Your task to perform on an android device: Open Google Image 0: 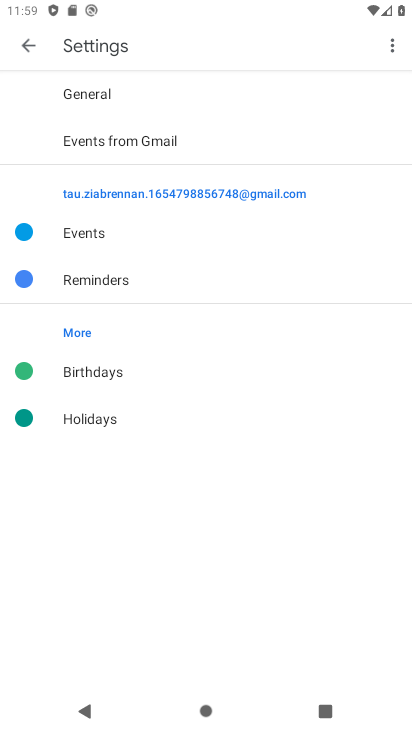
Step 0: press home button
Your task to perform on an android device: Open Google Image 1: 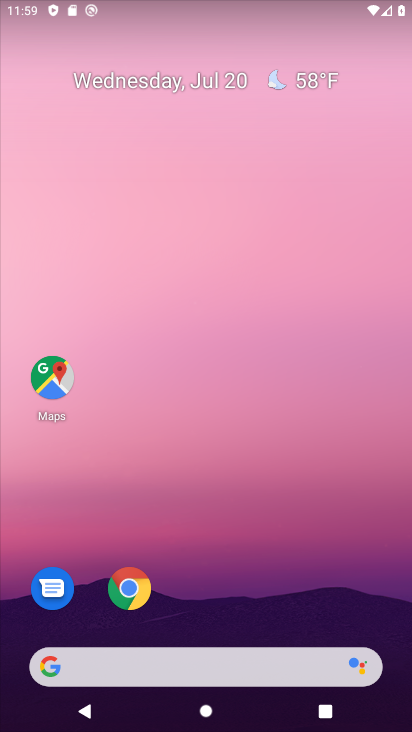
Step 1: drag from (232, 579) to (308, 56)
Your task to perform on an android device: Open Google Image 2: 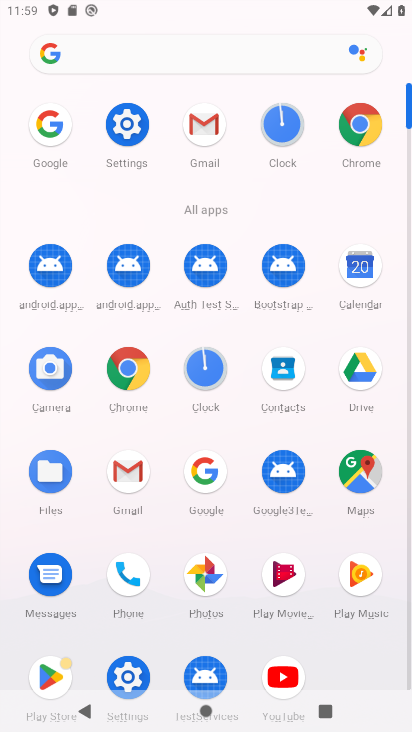
Step 2: click (199, 484)
Your task to perform on an android device: Open Google Image 3: 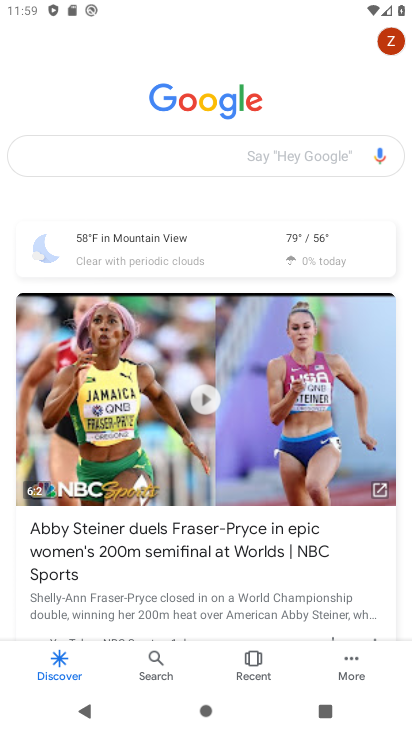
Step 3: task complete